Your task to perform on an android device: find snoozed emails in the gmail app Image 0: 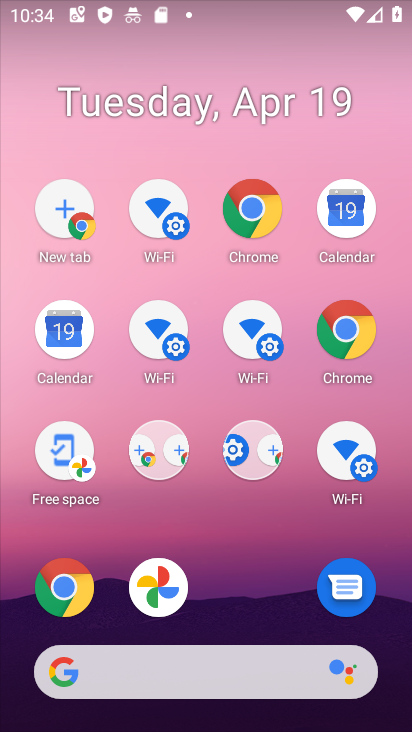
Step 0: drag from (310, 625) to (175, 103)
Your task to perform on an android device: find snoozed emails in the gmail app Image 1: 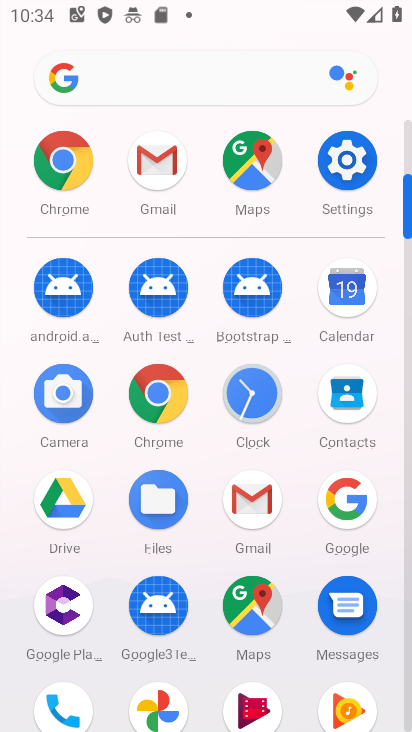
Step 1: click (259, 498)
Your task to perform on an android device: find snoozed emails in the gmail app Image 2: 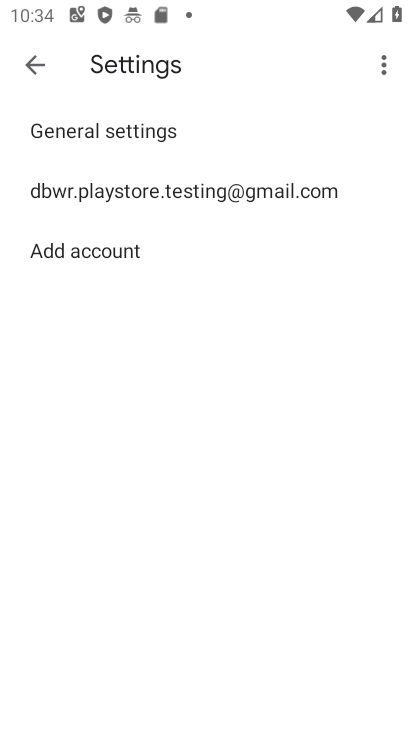
Step 2: click (150, 195)
Your task to perform on an android device: find snoozed emails in the gmail app Image 3: 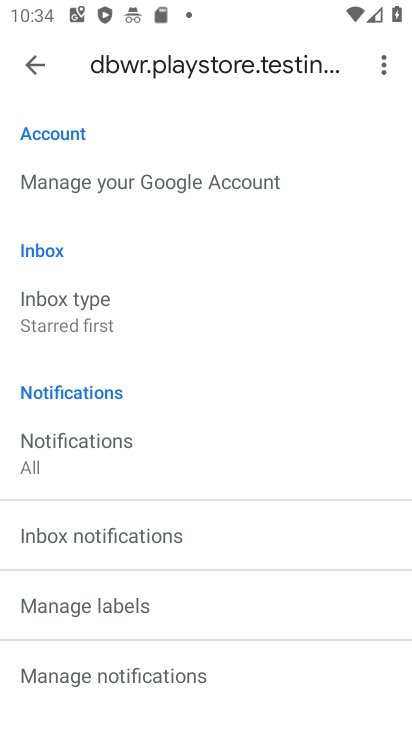
Step 3: click (38, 56)
Your task to perform on an android device: find snoozed emails in the gmail app Image 4: 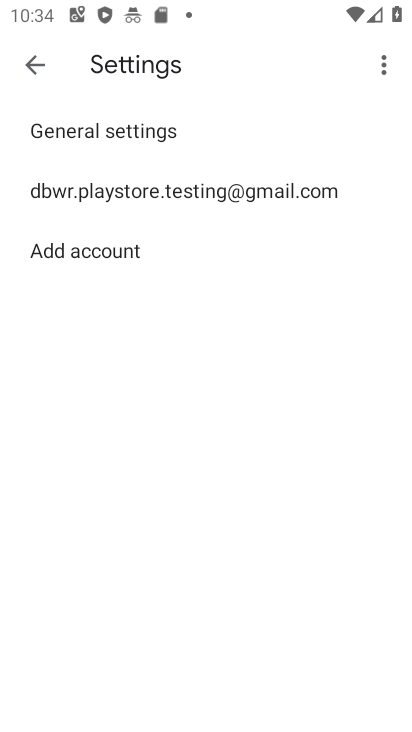
Step 4: click (38, 65)
Your task to perform on an android device: find snoozed emails in the gmail app Image 5: 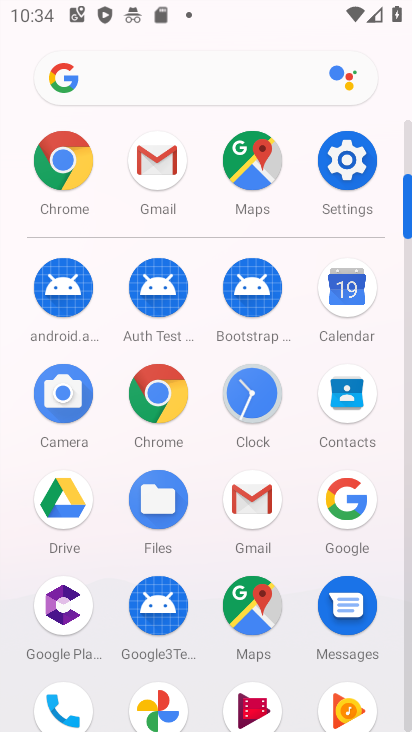
Step 5: click (258, 501)
Your task to perform on an android device: find snoozed emails in the gmail app Image 6: 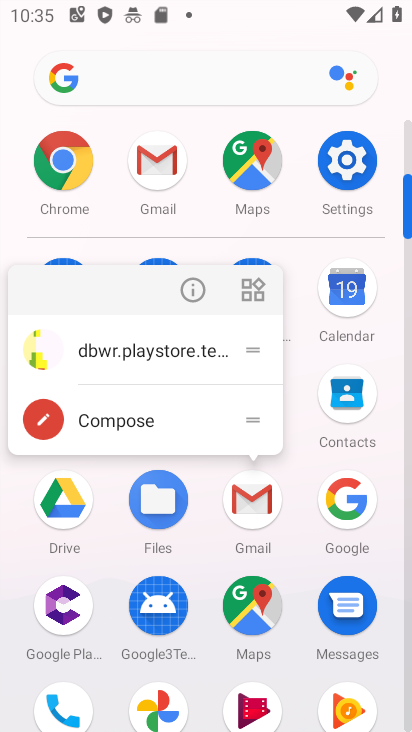
Step 6: click (150, 169)
Your task to perform on an android device: find snoozed emails in the gmail app Image 7: 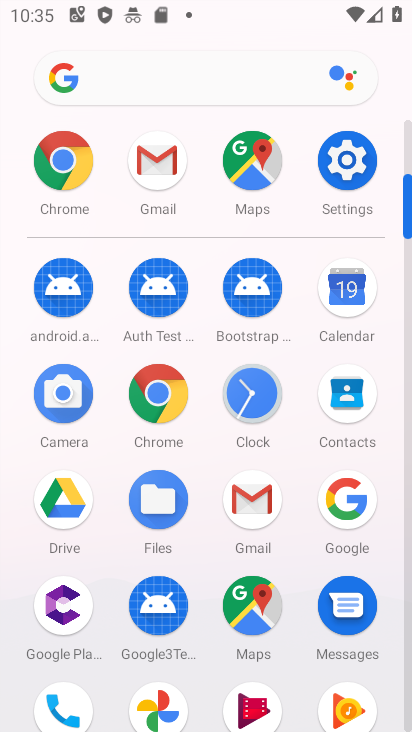
Step 7: click (247, 485)
Your task to perform on an android device: find snoozed emails in the gmail app Image 8: 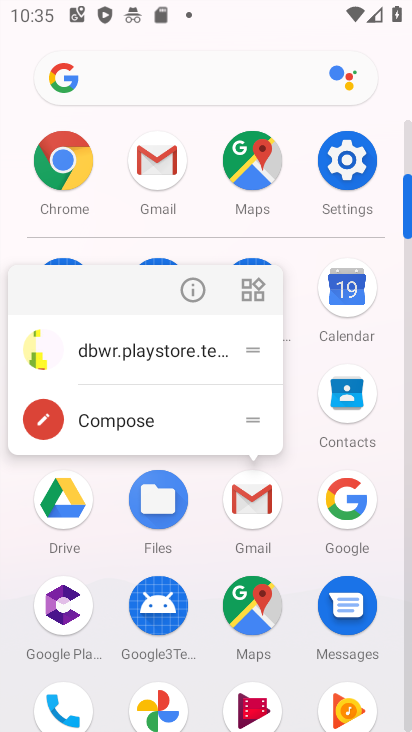
Step 8: click (251, 492)
Your task to perform on an android device: find snoozed emails in the gmail app Image 9: 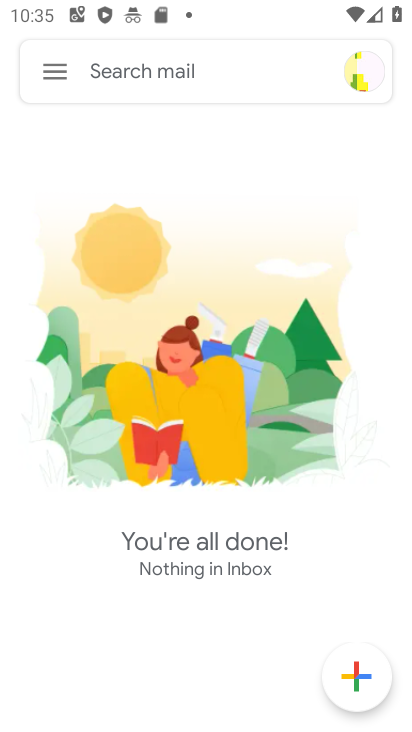
Step 9: click (46, 70)
Your task to perform on an android device: find snoozed emails in the gmail app Image 10: 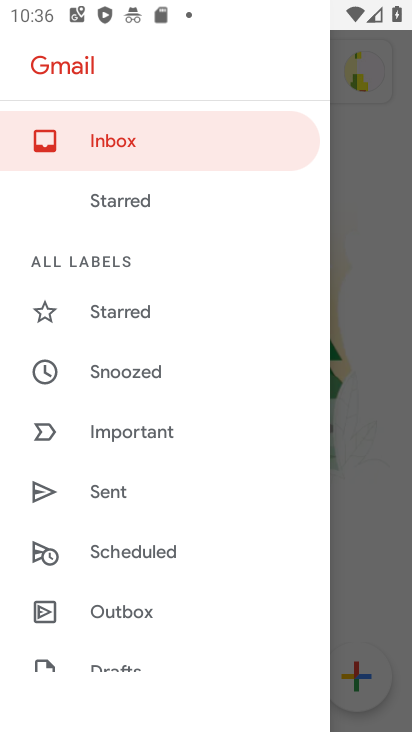
Step 10: click (123, 381)
Your task to perform on an android device: find snoozed emails in the gmail app Image 11: 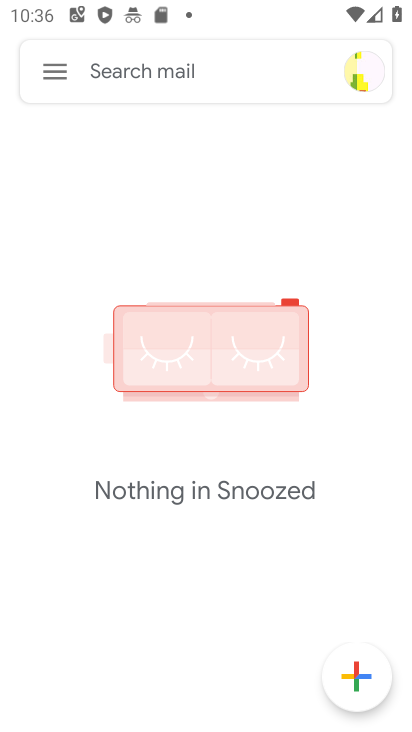
Step 11: press home button
Your task to perform on an android device: find snoozed emails in the gmail app Image 12: 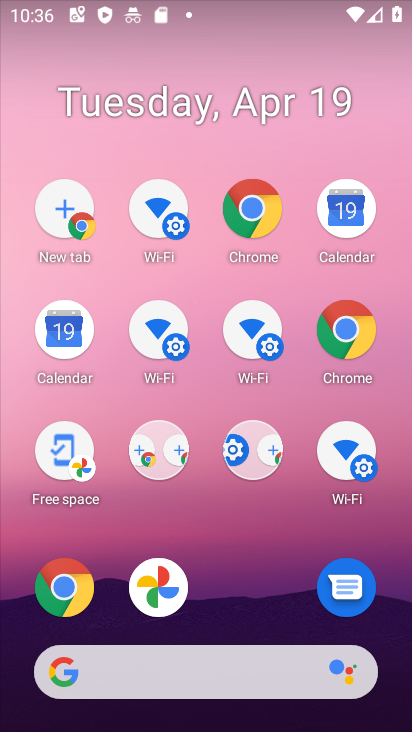
Step 12: drag from (286, 652) to (187, 176)
Your task to perform on an android device: find snoozed emails in the gmail app Image 13: 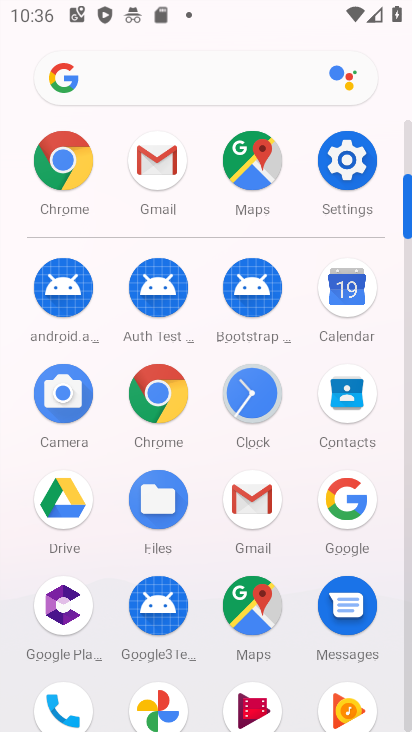
Step 13: click (244, 485)
Your task to perform on an android device: find snoozed emails in the gmail app Image 14: 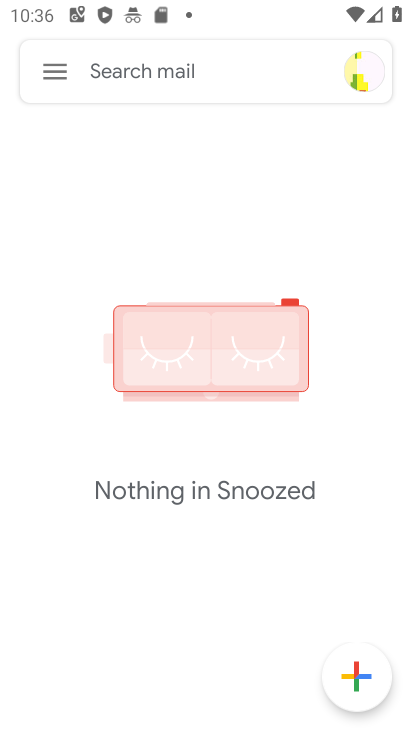
Step 14: task complete